Your task to perform on an android device: Search for "energizer triple a" on target.com, select the first entry, add it to the cart, then select checkout. Image 0: 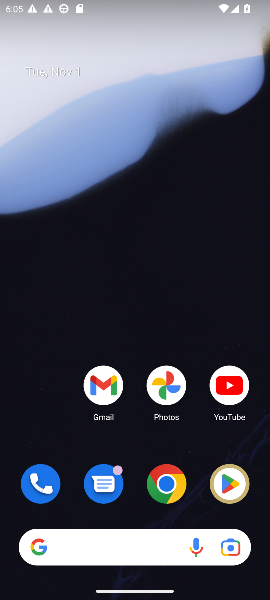
Step 0: click (165, 473)
Your task to perform on an android device: Search for "energizer triple a" on target.com, select the first entry, add it to the cart, then select checkout. Image 1: 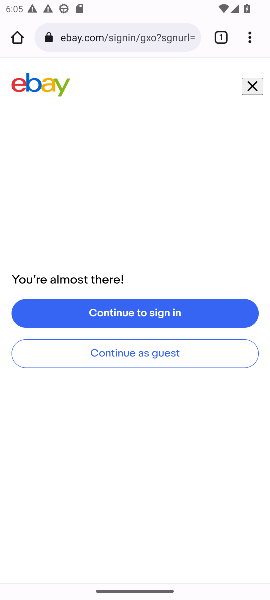
Step 1: click (252, 86)
Your task to perform on an android device: Search for "energizer triple a" on target.com, select the first entry, add it to the cart, then select checkout. Image 2: 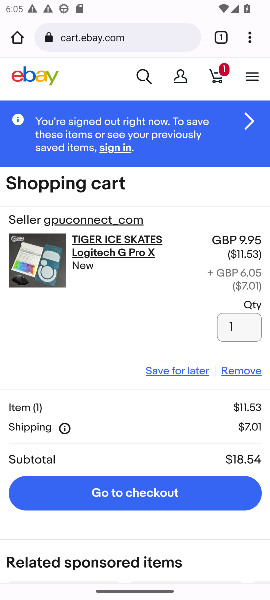
Step 2: click (152, 35)
Your task to perform on an android device: Search for "energizer triple a" on target.com, select the first entry, add it to the cart, then select checkout. Image 3: 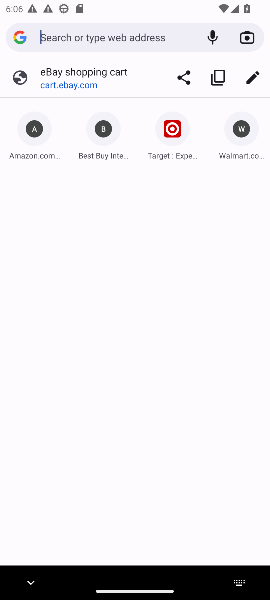
Step 3: type "target.com"
Your task to perform on an android device: Search for "energizer triple a" on target.com, select the first entry, add it to the cart, then select checkout. Image 4: 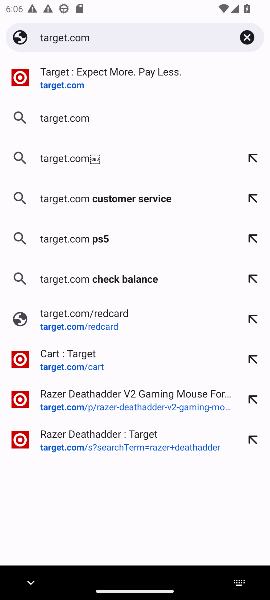
Step 4: click (132, 80)
Your task to perform on an android device: Search for "energizer triple a" on target.com, select the first entry, add it to the cart, then select checkout. Image 5: 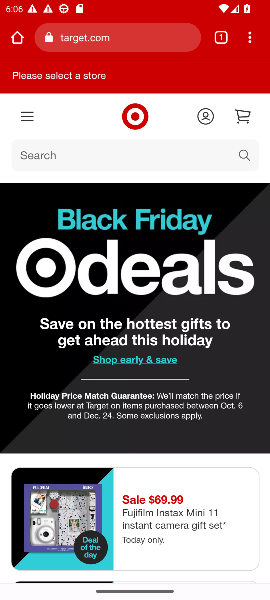
Step 5: click (99, 149)
Your task to perform on an android device: Search for "energizer triple a" on target.com, select the first entry, add it to the cart, then select checkout. Image 6: 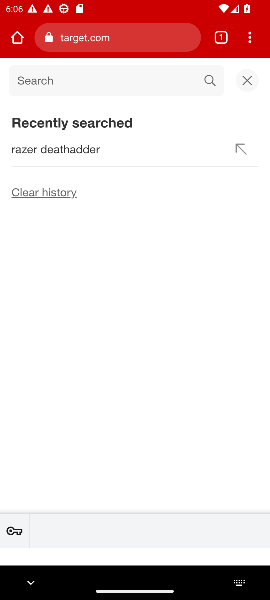
Step 6: type "energizer triple a"
Your task to perform on an android device: Search for "energizer triple a" on target.com, select the first entry, add it to the cart, then select checkout. Image 7: 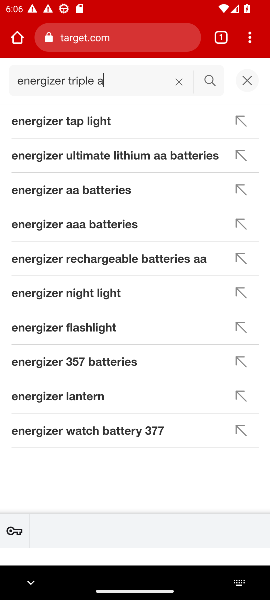
Step 7: click (209, 80)
Your task to perform on an android device: Search for "energizer triple a" on target.com, select the first entry, add it to the cart, then select checkout. Image 8: 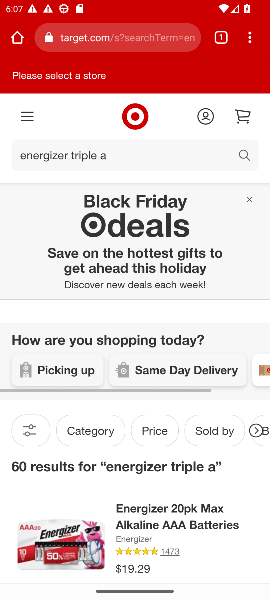
Step 8: drag from (172, 397) to (138, 225)
Your task to perform on an android device: Search for "energizer triple a" on target.com, select the first entry, add it to the cart, then select checkout. Image 9: 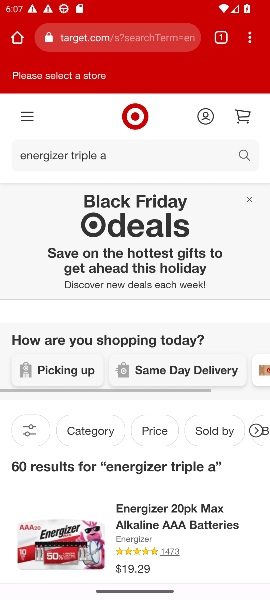
Step 9: drag from (183, 494) to (176, 426)
Your task to perform on an android device: Search for "energizer triple a" on target.com, select the first entry, add it to the cart, then select checkout. Image 10: 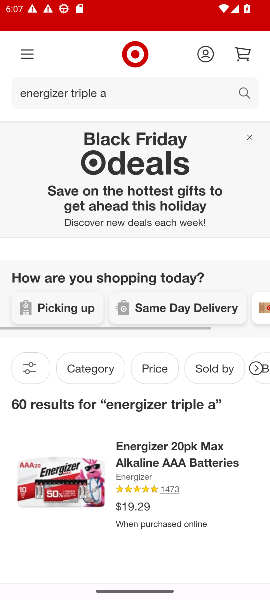
Step 10: click (163, 454)
Your task to perform on an android device: Search for "energizer triple a" on target.com, select the first entry, add it to the cart, then select checkout. Image 11: 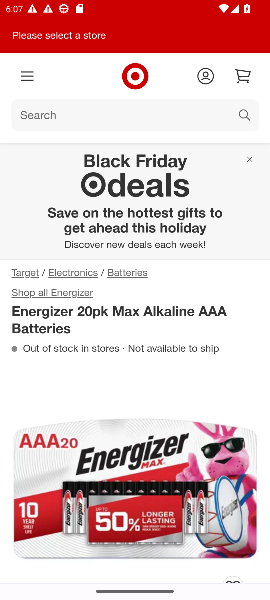
Step 11: drag from (140, 468) to (129, 288)
Your task to perform on an android device: Search for "energizer triple a" on target.com, select the first entry, add it to the cart, then select checkout. Image 12: 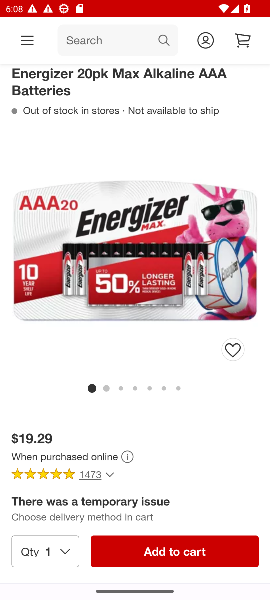
Step 12: click (174, 546)
Your task to perform on an android device: Search for "energizer triple a" on target.com, select the first entry, add it to the cart, then select checkout. Image 13: 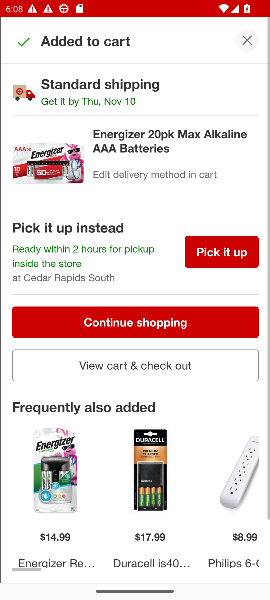
Step 13: click (140, 361)
Your task to perform on an android device: Search for "energizer triple a" on target.com, select the first entry, add it to the cart, then select checkout. Image 14: 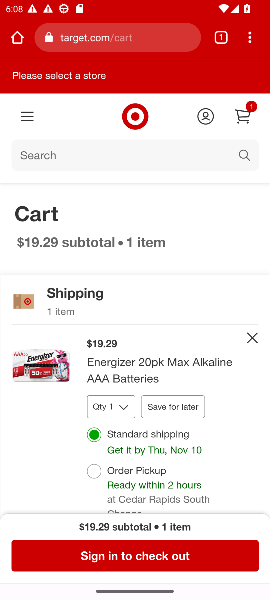
Step 14: click (152, 559)
Your task to perform on an android device: Search for "energizer triple a" on target.com, select the first entry, add it to the cart, then select checkout. Image 15: 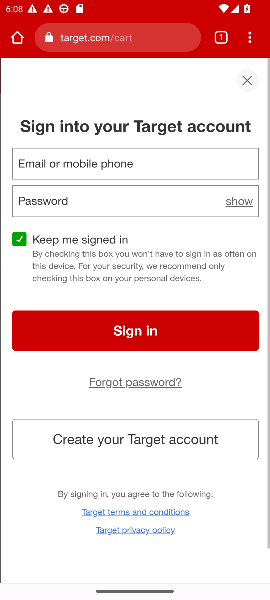
Step 15: task complete